Your task to perform on an android device: turn pop-ups off in chrome Image 0: 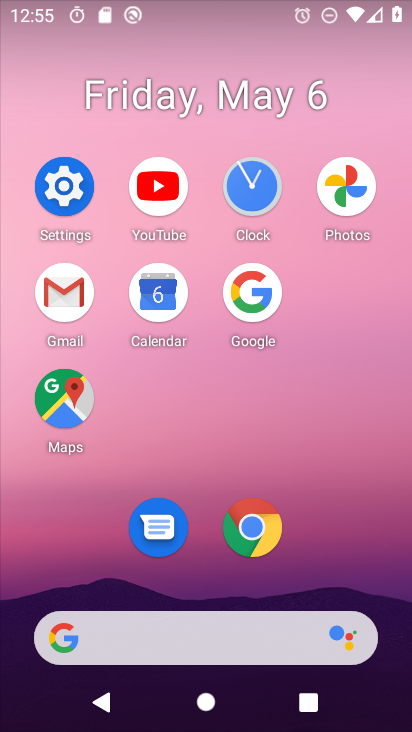
Step 0: click (272, 528)
Your task to perform on an android device: turn pop-ups off in chrome Image 1: 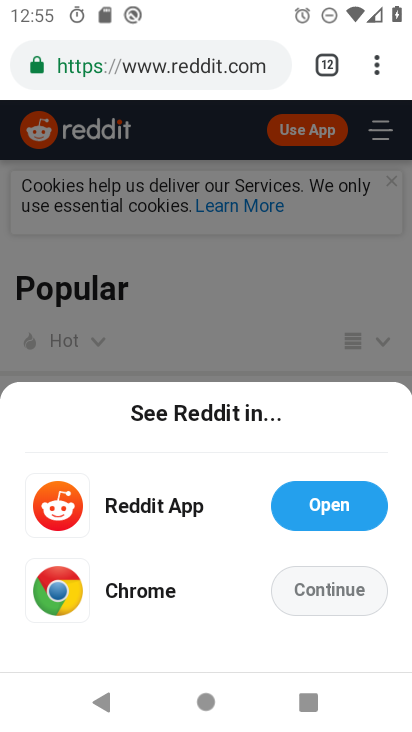
Step 1: click (382, 59)
Your task to perform on an android device: turn pop-ups off in chrome Image 2: 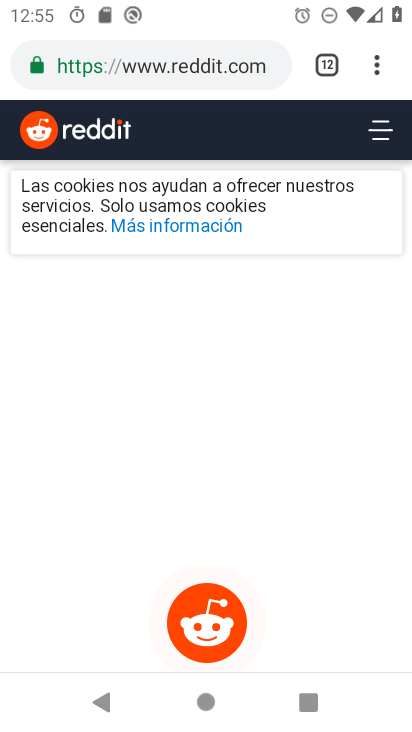
Step 2: click (377, 57)
Your task to perform on an android device: turn pop-ups off in chrome Image 3: 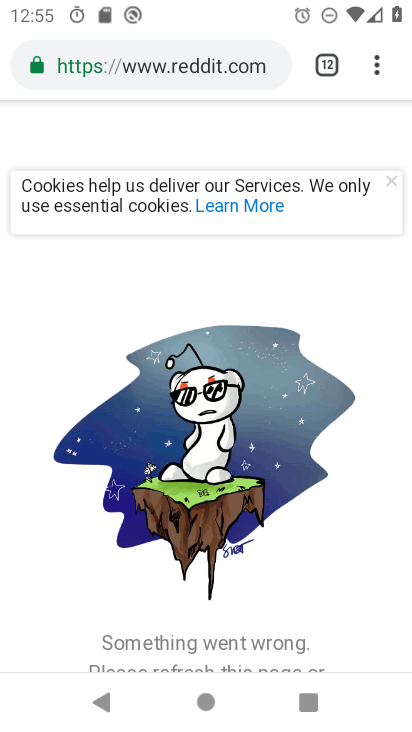
Step 3: click (386, 57)
Your task to perform on an android device: turn pop-ups off in chrome Image 4: 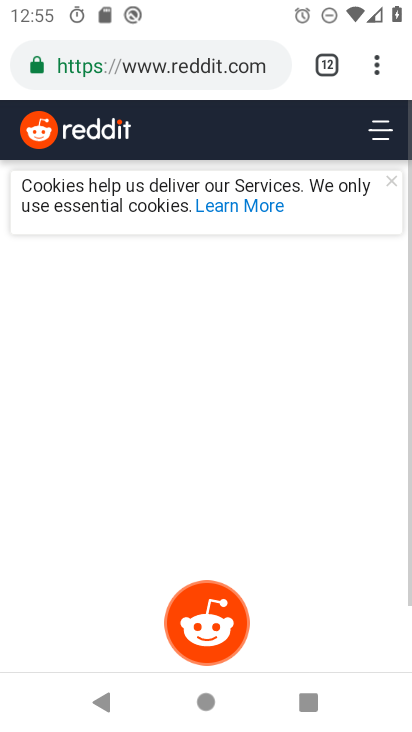
Step 4: click (376, 61)
Your task to perform on an android device: turn pop-ups off in chrome Image 5: 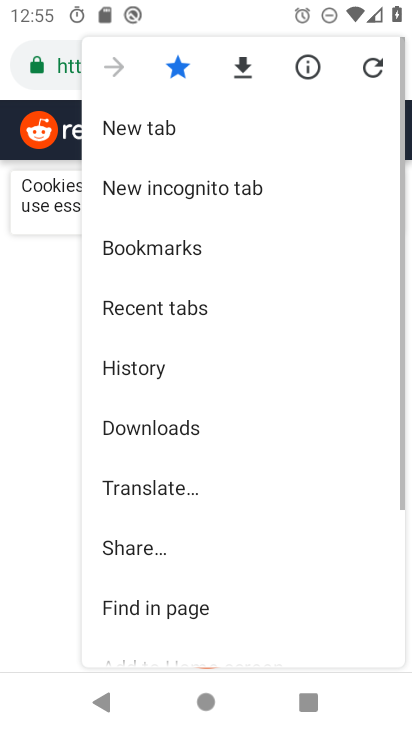
Step 5: drag from (286, 517) to (260, 112)
Your task to perform on an android device: turn pop-ups off in chrome Image 6: 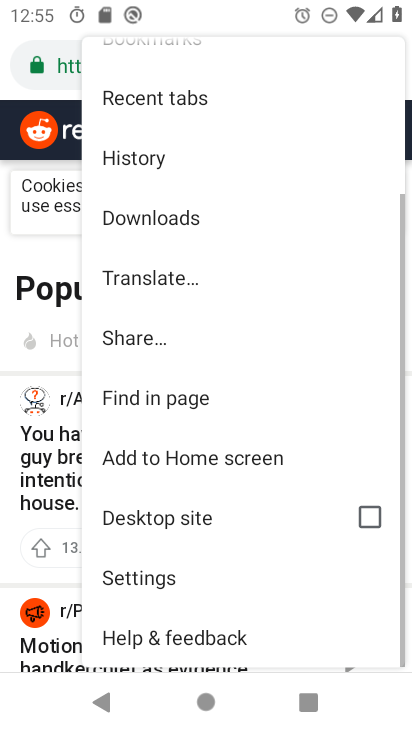
Step 6: click (257, 574)
Your task to perform on an android device: turn pop-ups off in chrome Image 7: 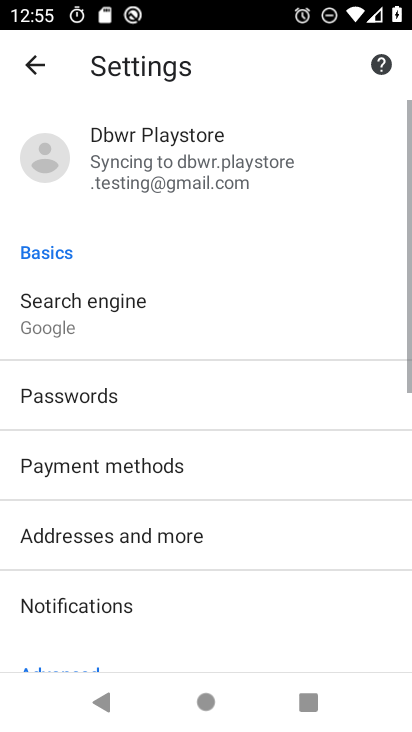
Step 7: drag from (253, 568) to (251, 146)
Your task to perform on an android device: turn pop-ups off in chrome Image 8: 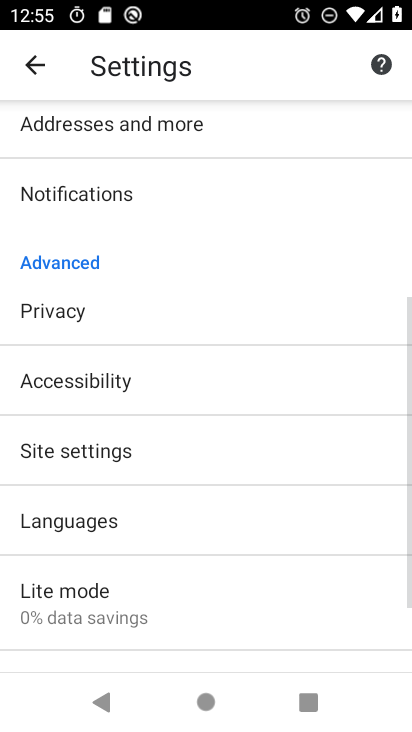
Step 8: click (133, 453)
Your task to perform on an android device: turn pop-ups off in chrome Image 9: 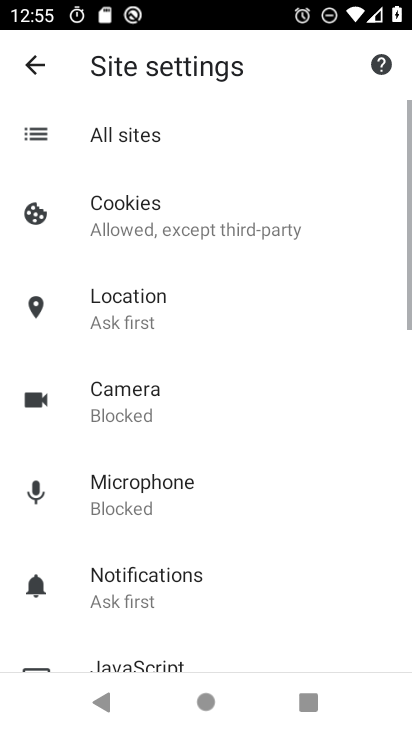
Step 9: drag from (271, 521) to (244, 136)
Your task to perform on an android device: turn pop-ups off in chrome Image 10: 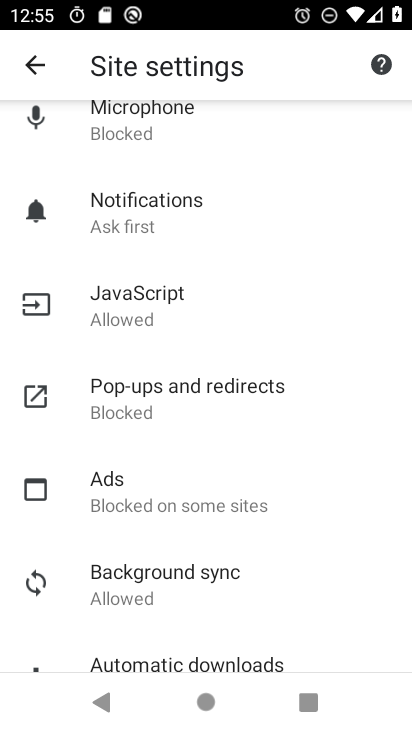
Step 10: click (268, 407)
Your task to perform on an android device: turn pop-ups off in chrome Image 11: 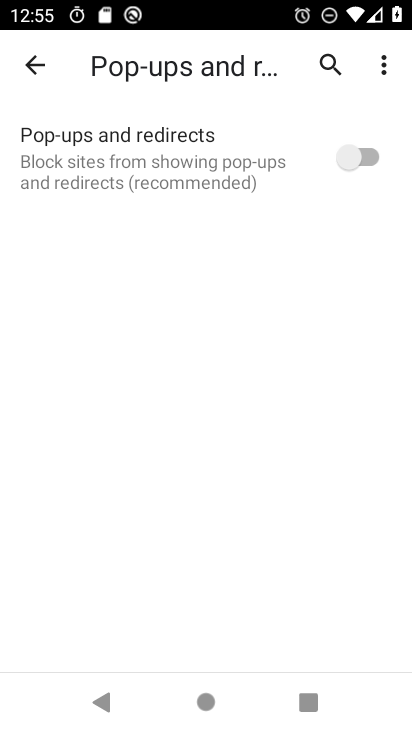
Step 11: task complete